Your task to perform on an android device: star an email in the gmail app Image 0: 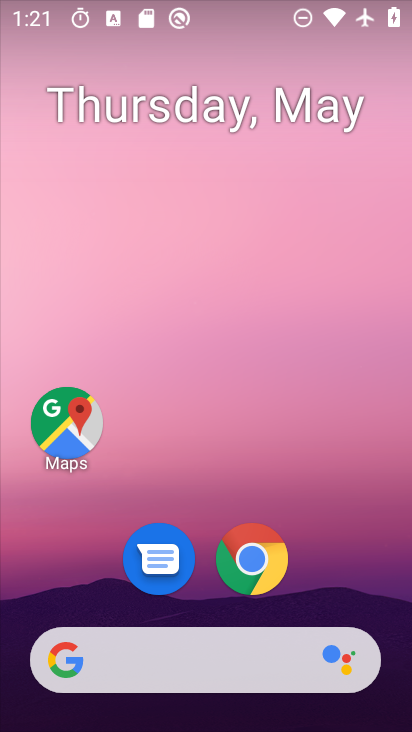
Step 0: drag from (219, 605) to (272, 253)
Your task to perform on an android device: star an email in the gmail app Image 1: 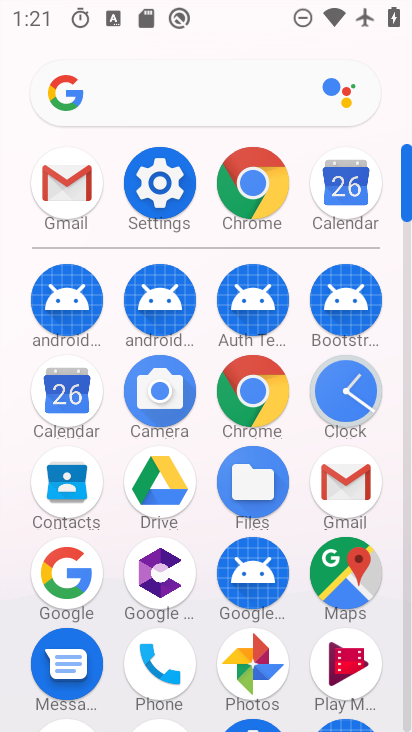
Step 1: click (351, 501)
Your task to perform on an android device: star an email in the gmail app Image 2: 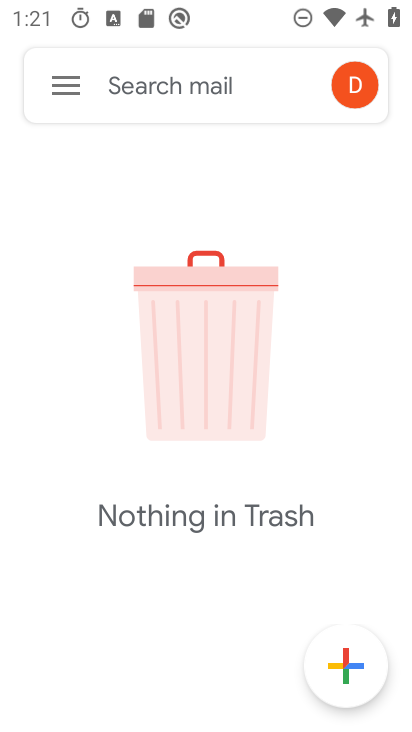
Step 2: click (71, 90)
Your task to perform on an android device: star an email in the gmail app Image 3: 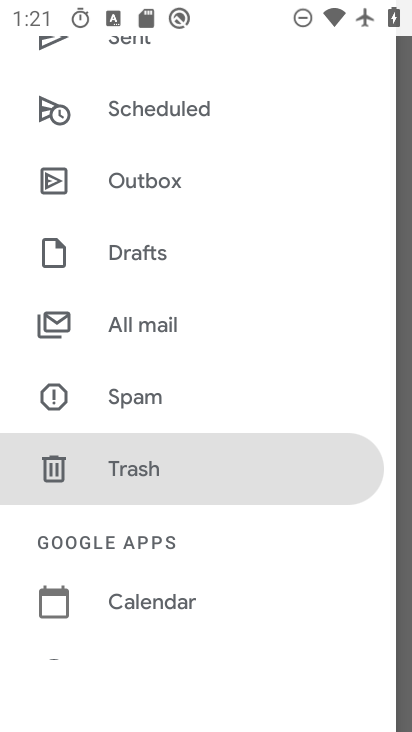
Step 3: click (168, 321)
Your task to perform on an android device: star an email in the gmail app Image 4: 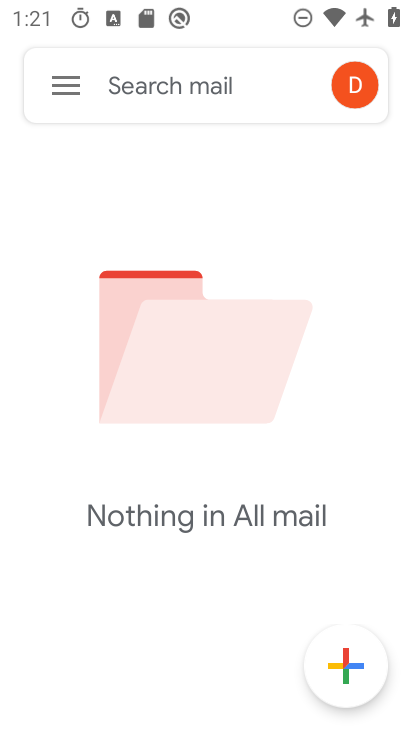
Step 4: task complete